Your task to perform on an android device: change timer sound Image 0: 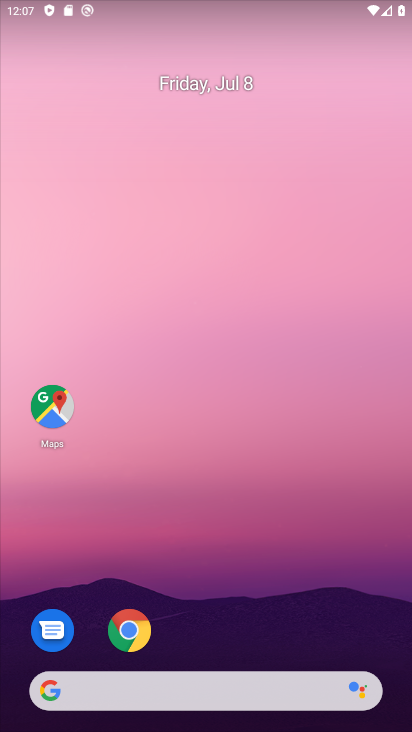
Step 0: drag from (390, 649) to (187, 24)
Your task to perform on an android device: change timer sound Image 1: 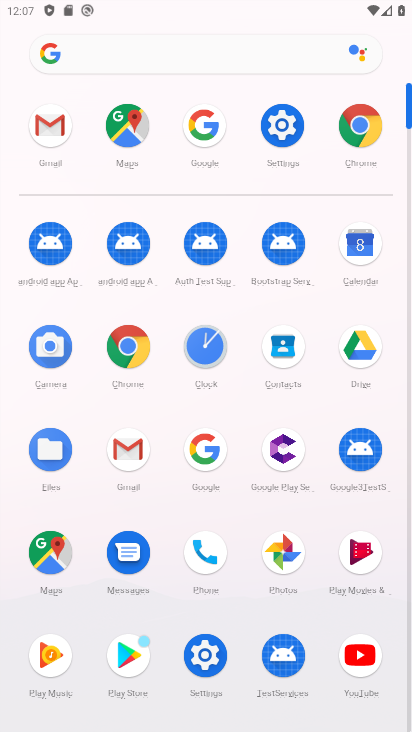
Step 1: click (199, 342)
Your task to perform on an android device: change timer sound Image 2: 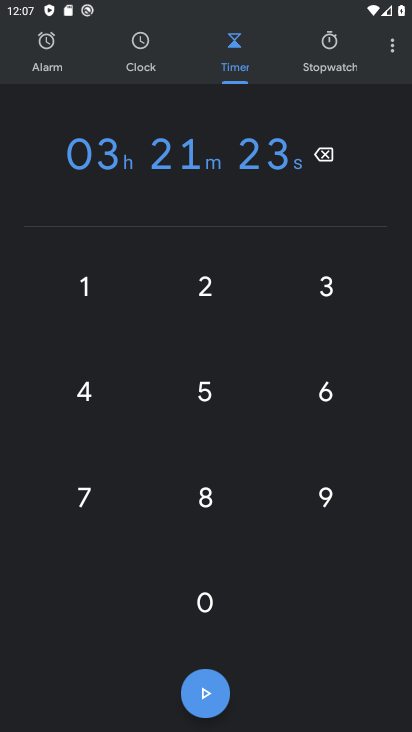
Step 2: click (389, 32)
Your task to perform on an android device: change timer sound Image 3: 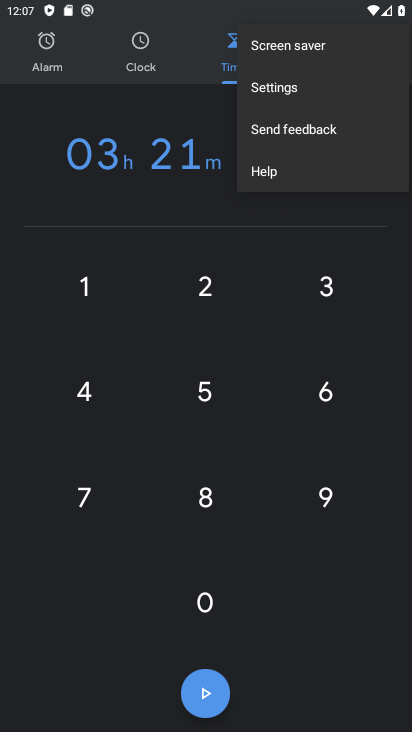
Step 3: click (269, 88)
Your task to perform on an android device: change timer sound Image 4: 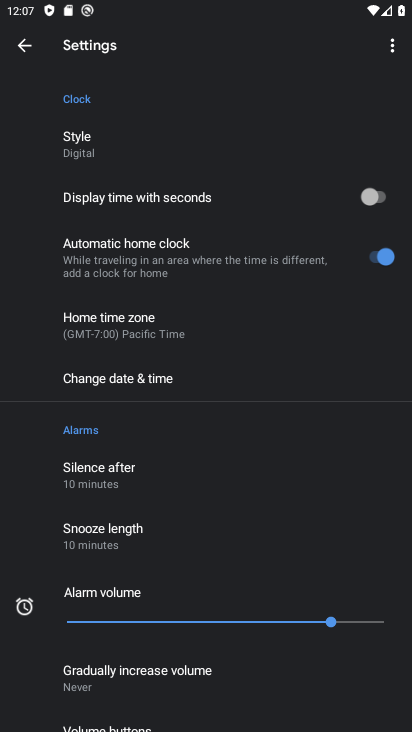
Step 4: drag from (165, 695) to (153, 353)
Your task to perform on an android device: change timer sound Image 5: 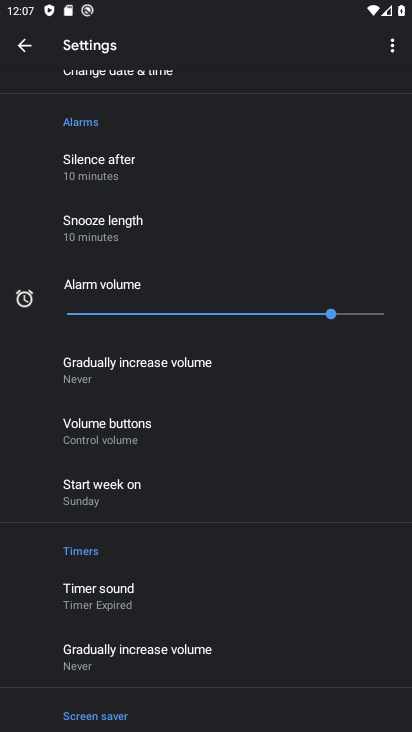
Step 5: click (128, 573)
Your task to perform on an android device: change timer sound Image 6: 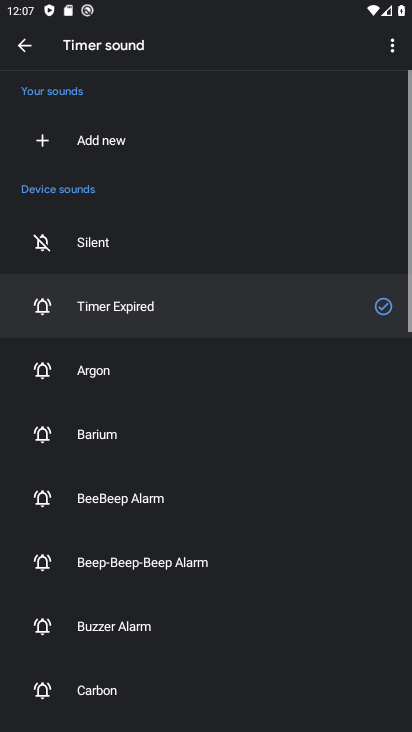
Step 6: click (104, 441)
Your task to perform on an android device: change timer sound Image 7: 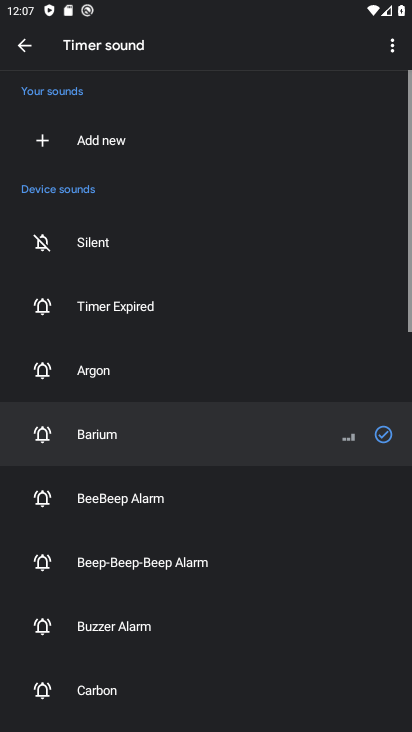
Step 7: task complete